Your task to perform on an android device: toggle translation in the chrome app Image 0: 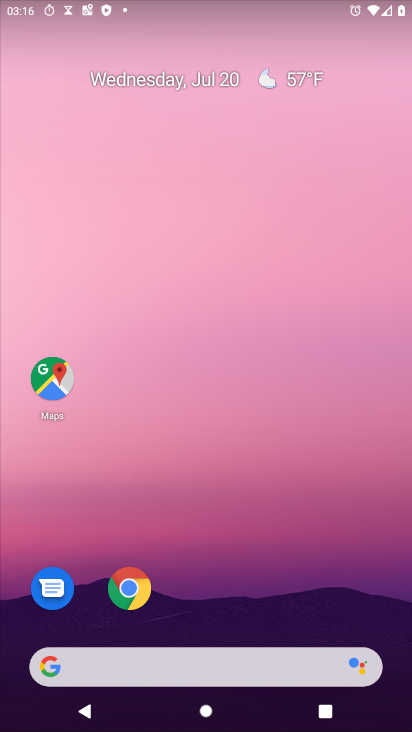
Step 0: drag from (137, 535) to (192, 118)
Your task to perform on an android device: toggle translation in the chrome app Image 1: 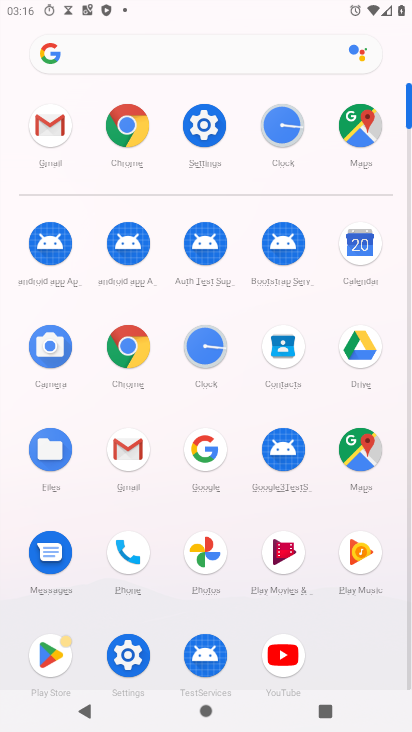
Step 1: click (133, 338)
Your task to perform on an android device: toggle translation in the chrome app Image 2: 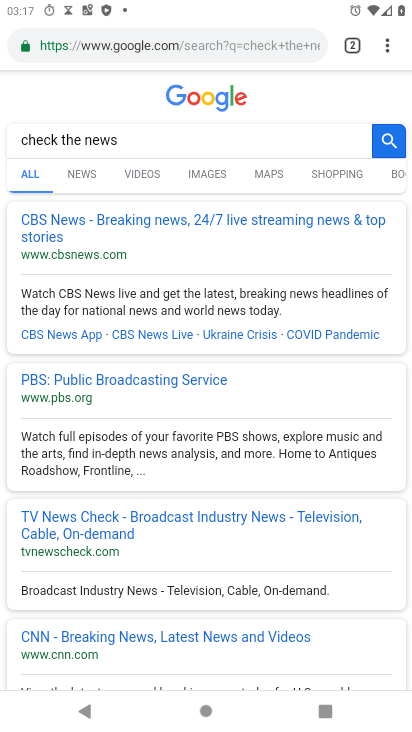
Step 2: drag from (388, 37) to (260, 505)
Your task to perform on an android device: toggle translation in the chrome app Image 3: 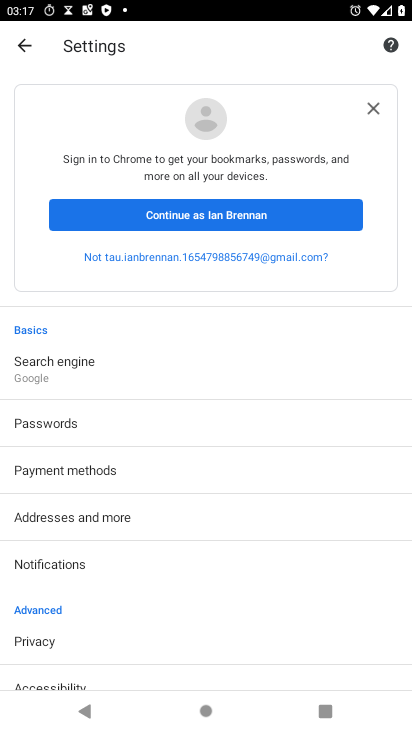
Step 3: drag from (180, 636) to (223, 208)
Your task to perform on an android device: toggle translation in the chrome app Image 4: 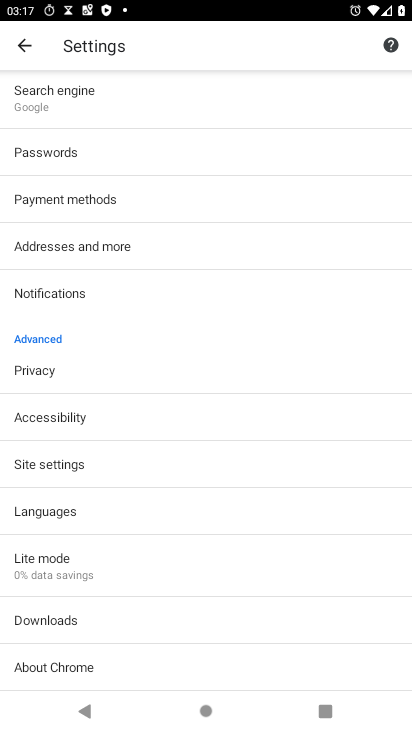
Step 4: click (117, 527)
Your task to perform on an android device: toggle translation in the chrome app Image 5: 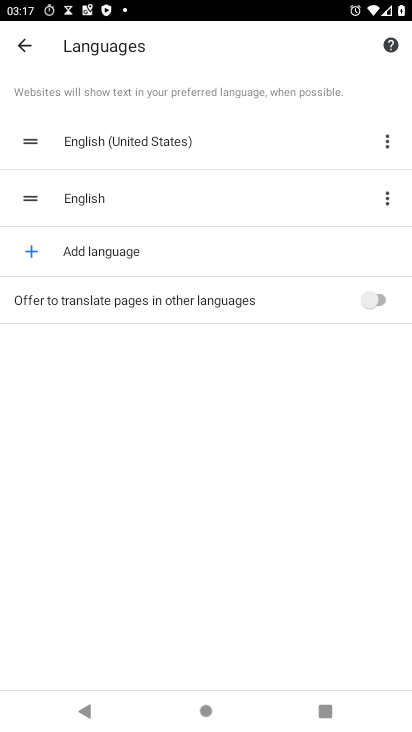
Step 5: click (377, 303)
Your task to perform on an android device: toggle translation in the chrome app Image 6: 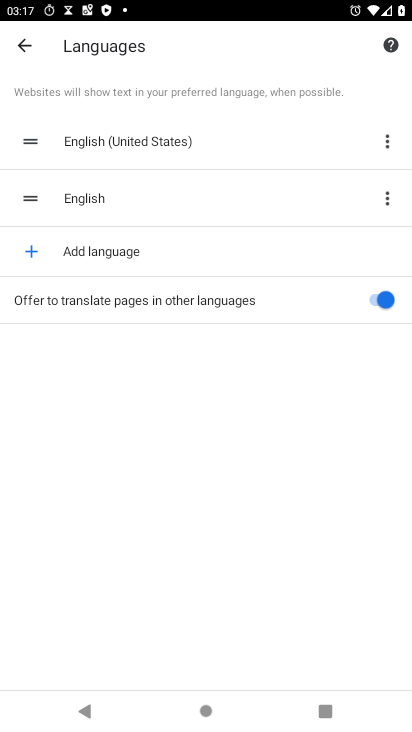
Step 6: task complete